Your task to perform on an android device: Open the calendar app, open the side menu, and click the "Day" option Image 0: 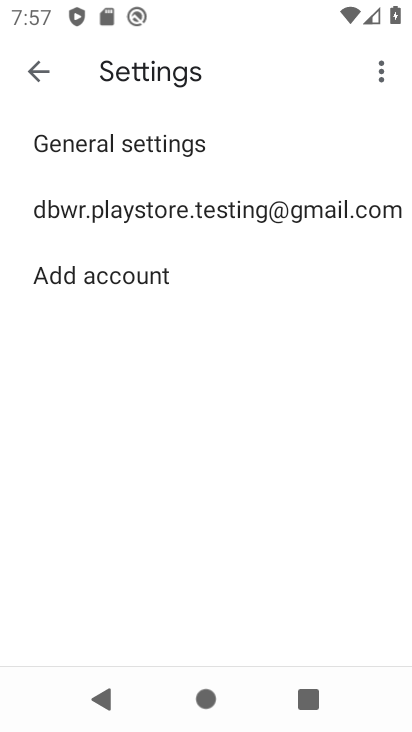
Step 0: press back button
Your task to perform on an android device: Open the calendar app, open the side menu, and click the "Day" option Image 1: 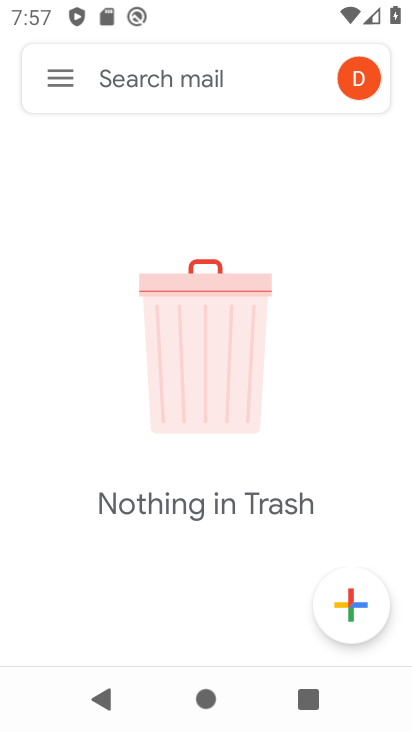
Step 1: press back button
Your task to perform on an android device: Open the calendar app, open the side menu, and click the "Day" option Image 2: 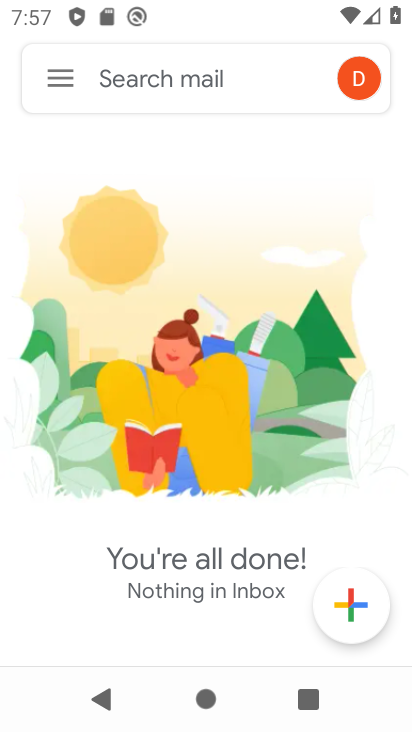
Step 2: press back button
Your task to perform on an android device: Open the calendar app, open the side menu, and click the "Day" option Image 3: 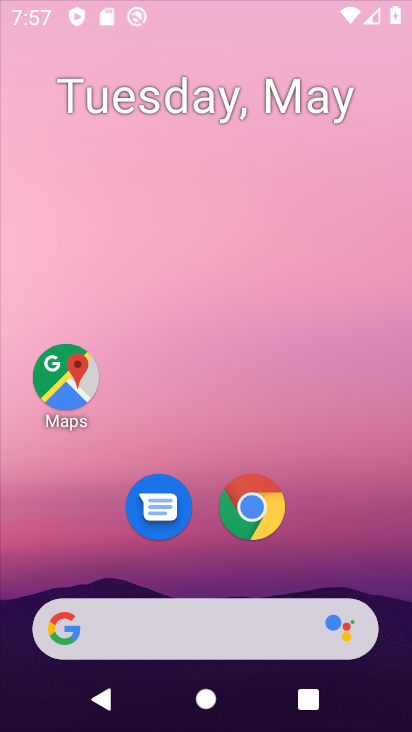
Step 3: click (313, 35)
Your task to perform on an android device: Open the calendar app, open the side menu, and click the "Day" option Image 4: 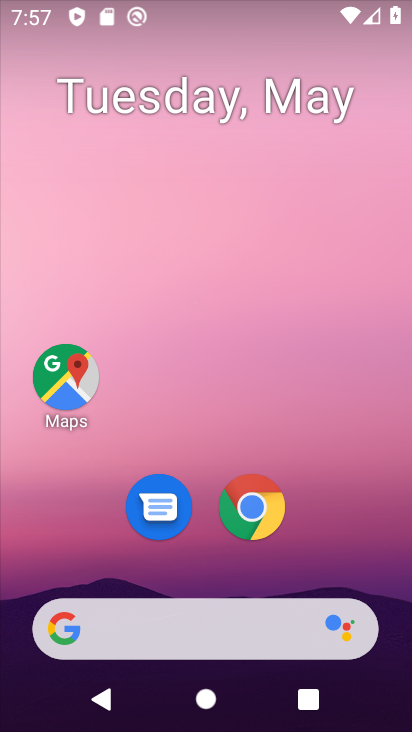
Step 4: drag from (343, 578) to (261, 49)
Your task to perform on an android device: Open the calendar app, open the side menu, and click the "Day" option Image 5: 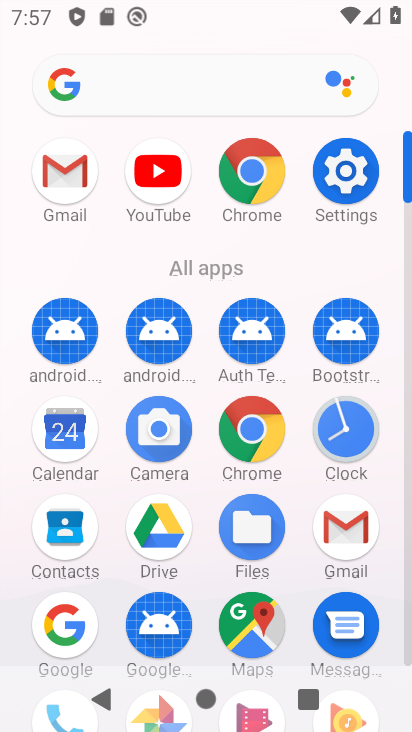
Step 5: click (14, 310)
Your task to perform on an android device: Open the calendar app, open the side menu, and click the "Day" option Image 6: 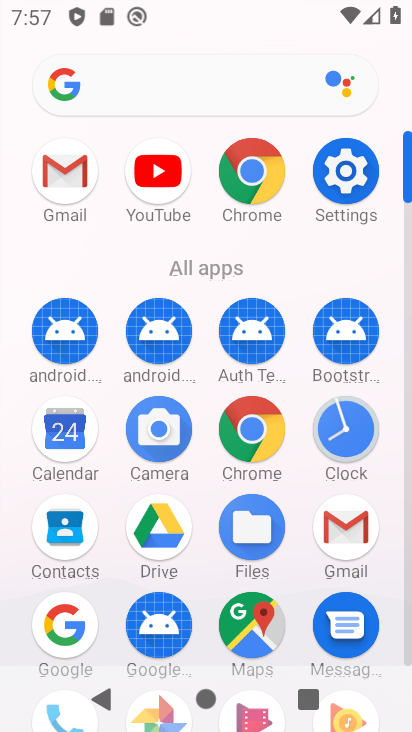
Step 6: drag from (6, 632) to (6, 215)
Your task to perform on an android device: Open the calendar app, open the side menu, and click the "Day" option Image 7: 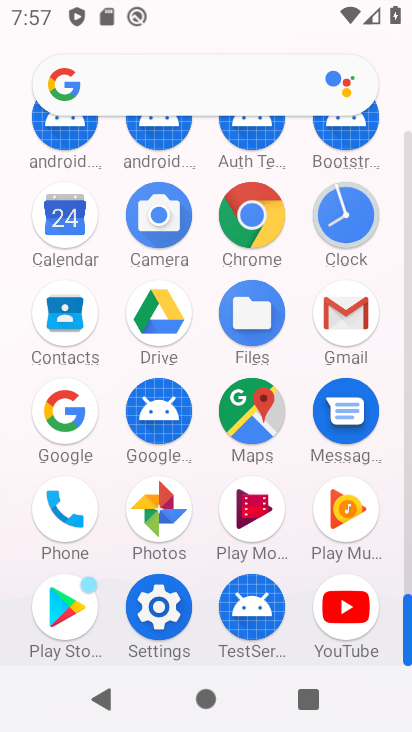
Step 7: click (63, 209)
Your task to perform on an android device: Open the calendar app, open the side menu, and click the "Day" option Image 8: 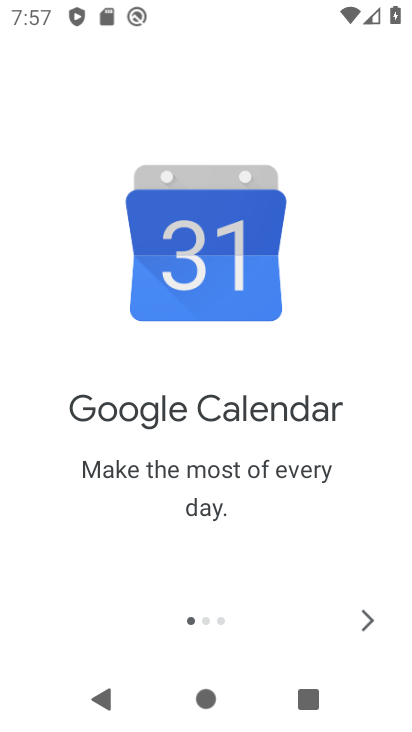
Step 8: click (360, 623)
Your task to perform on an android device: Open the calendar app, open the side menu, and click the "Day" option Image 9: 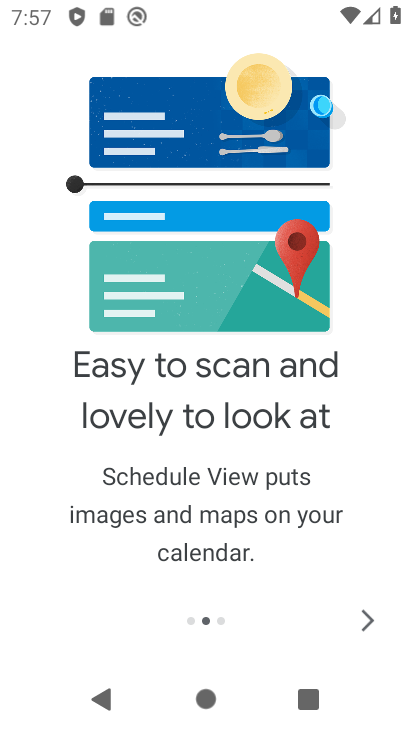
Step 9: click (371, 619)
Your task to perform on an android device: Open the calendar app, open the side menu, and click the "Day" option Image 10: 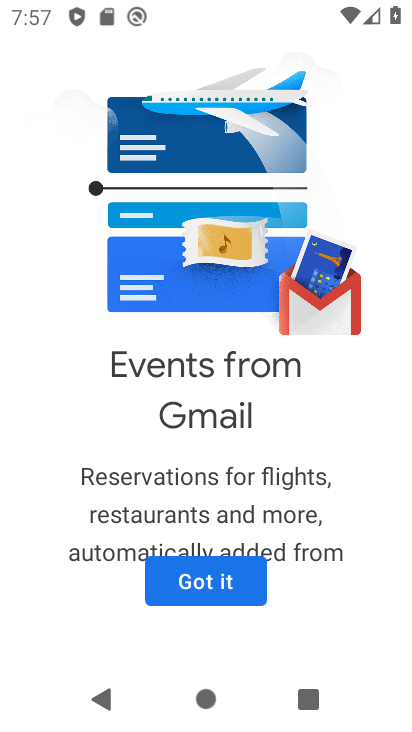
Step 10: click (239, 568)
Your task to perform on an android device: Open the calendar app, open the side menu, and click the "Day" option Image 11: 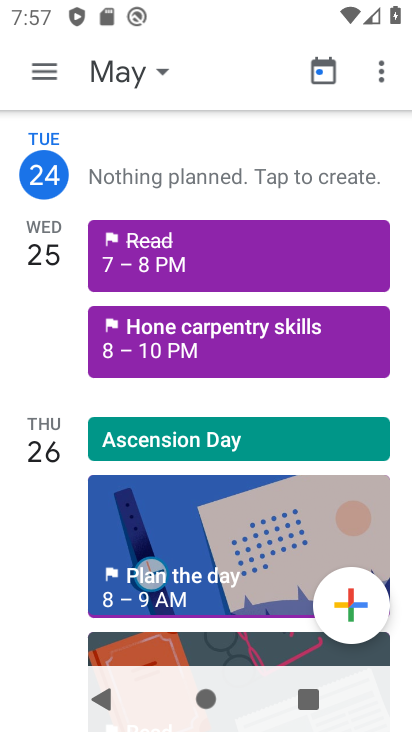
Step 11: click (48, 60)
Your task to perform on an android device: Open the calendar app, open the side menu, and click the "Day" option Image 12: 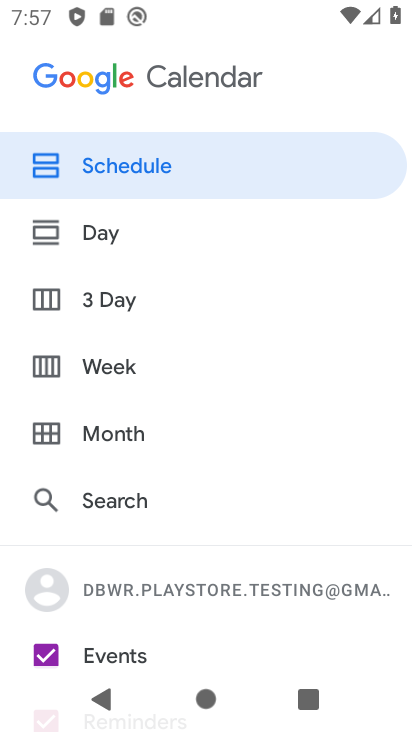
Step 12: click (125, 235)
Your task to perform on an android device: Open the calendar app, open the side menu, and click the "Day" option Image 13: 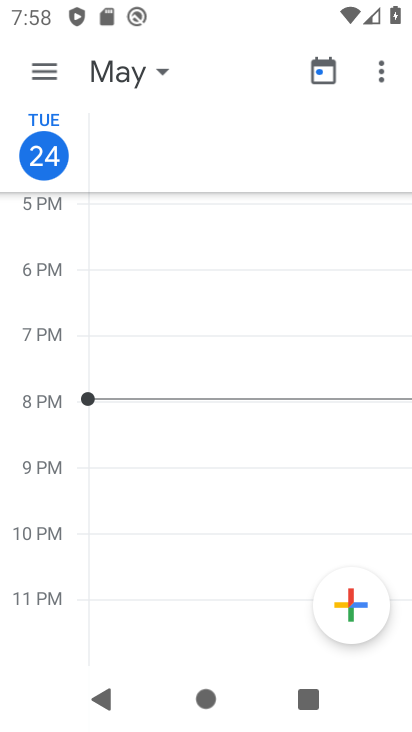
Step 13: task complete